Your task to perform on an android device: uninstall "Gboard" Image 0: 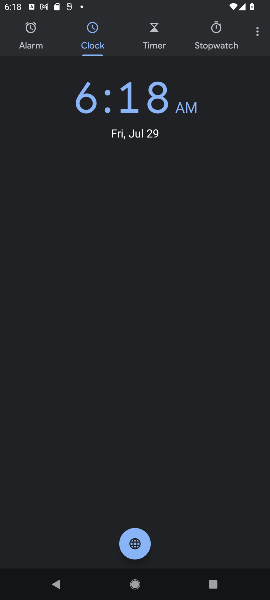
Step 0: press home button
Your task to perform on an android device: uninstall "Gboard" Image 1: 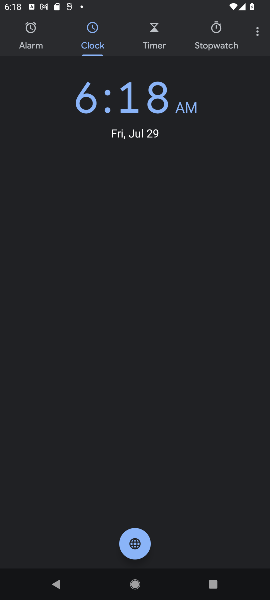
Step 1: press home button
Your task to perform on an android device: uninstall "Gboard" Image 2: 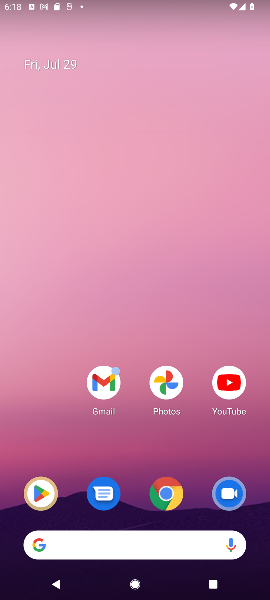
Step 2: drag from (153, 596) to (153, 443)
Your task to perform on an android device: uninstall "Gboard" Image 3: 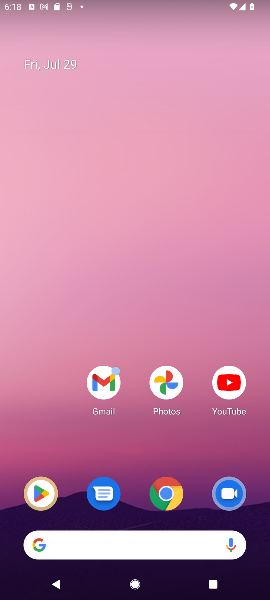
Step 3: click (40, 488)
Your task to perform on an android device: uninstall "Gboard" Image 4: 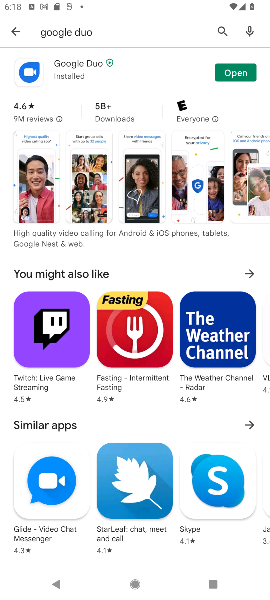
Step 4: click (217, 29)
Your task to perform on an android device: uninstall "Gboard" Image 5: 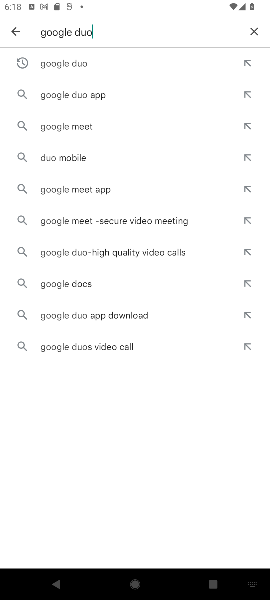
Step 5: click (254, 29)
Your task to perform on an android device: uninstall "Gboard" Image 6: 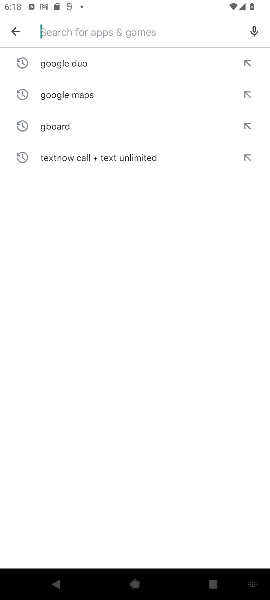
Step 6: type "Gboard"
Your task to perform on an android device: uninstall "Gboard" Image 7: 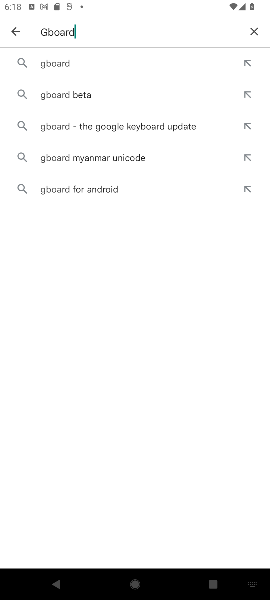
Step 7: click (51, 61)
Your task to perform on an android device: uninstall "Gboard" Image 8: 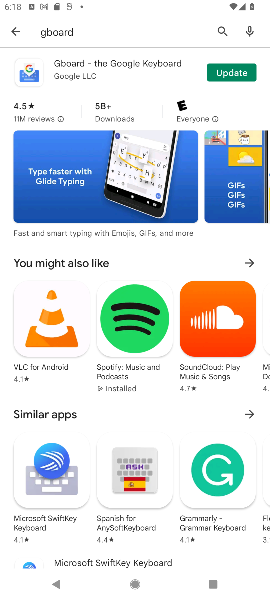
Step 8: click (162, 61)
Your task to perform on an android device: uninstall "Gboard" Image 9: 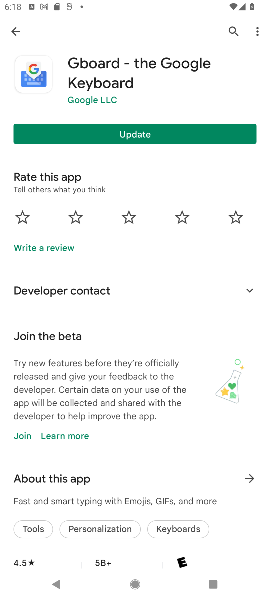
Step 9: task complete